Your task to perform on an android device: turn off airplane mode Image 0: 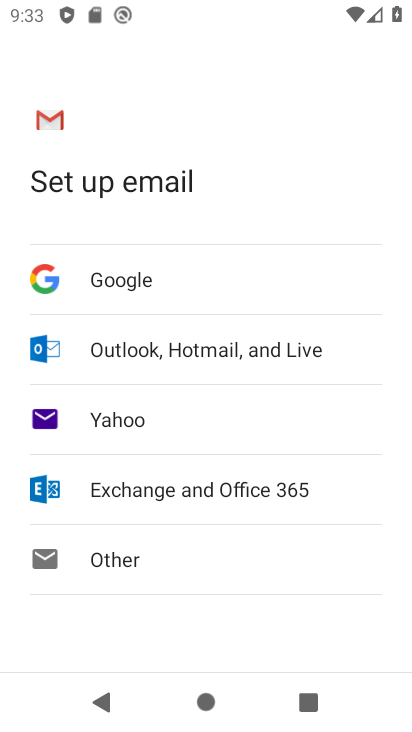
Step 0: press home button
Your task to perform on an android device: turn off airplane mode Image 1: 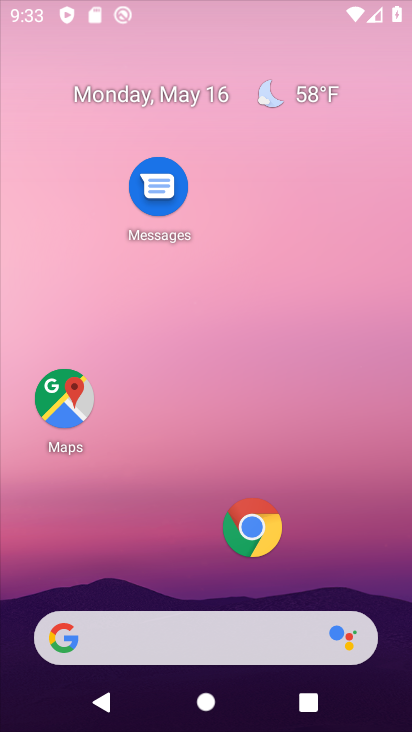
Step 1: drag from (207, 560) to (249, 24)
Your task to perform on an android device: turn off airplane mode Image 2: 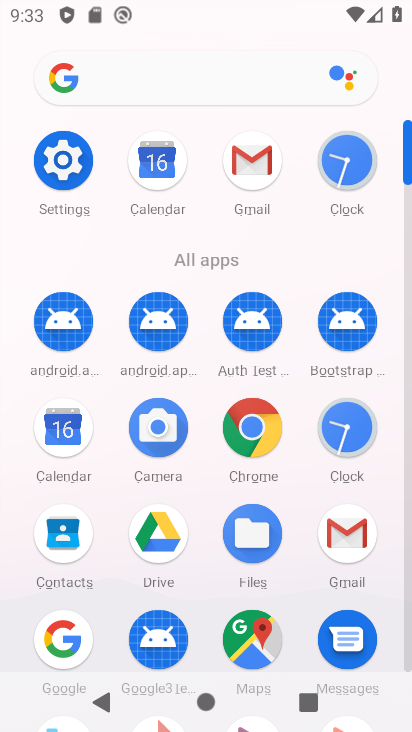
Step 2: click (54, 162)
Your task to perform on an android device: turn off airplane mode Image 3: 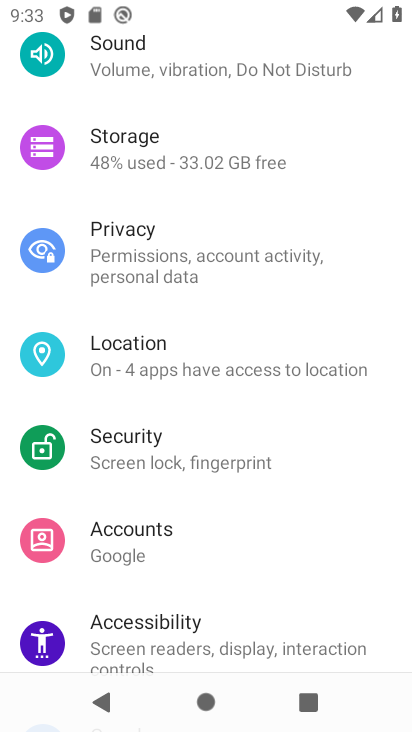
Step 3: drag from (183, 178) to (243, 693)
Your task to perform on an android device: turn off airplane mode Image 4: 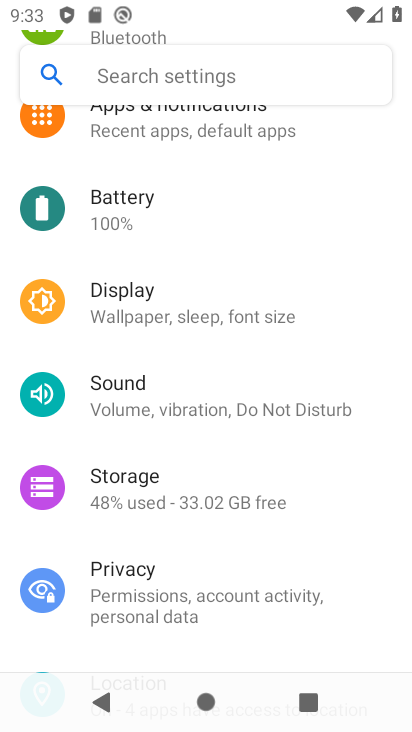
Step 4: drag from (154, 162) to (235, 612)
Your task to perform on an android device: turn off airplane mode Image 5: 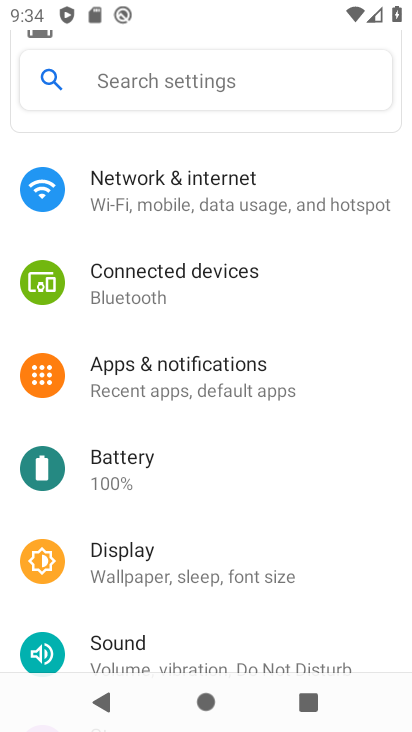
Step 5: click (168, 192)
Your task to perform on an android device: turn off airplane mode Image 6: 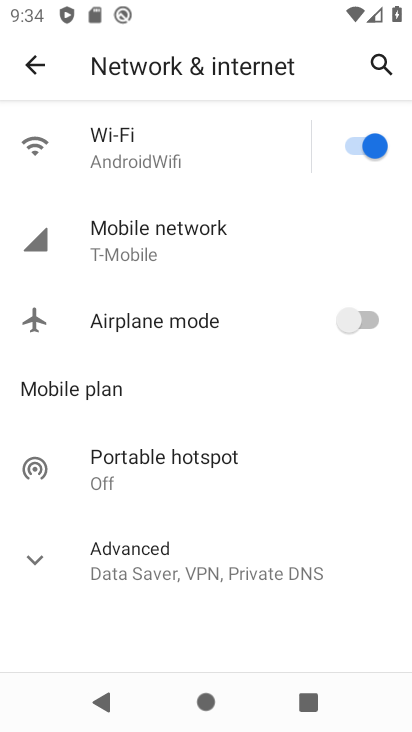
Step 6: task complete